Your task to perform on an android device: snooze an email in the gmail app Image 0: 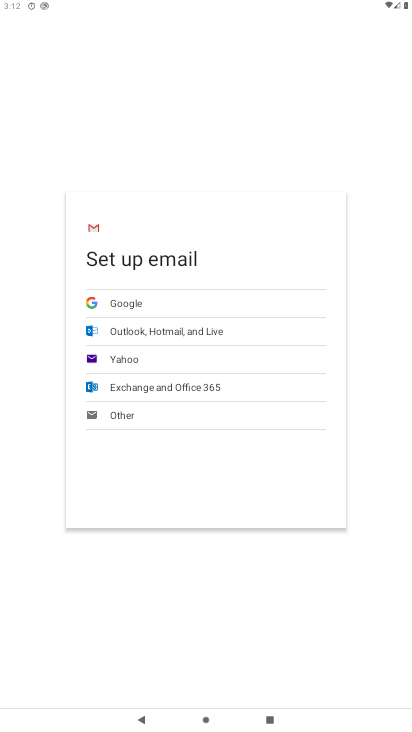
Step 0: press home button
Your task to perform on an android device: snooze an email in the gmail app Image 1: 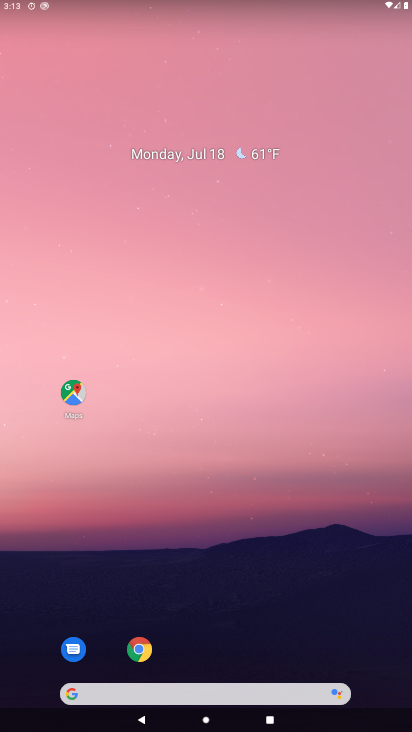
Step 1: drag from (152, 420) to (251, 104)
Your task to perform on an android device: snooze an email in the gmail app Image 2: 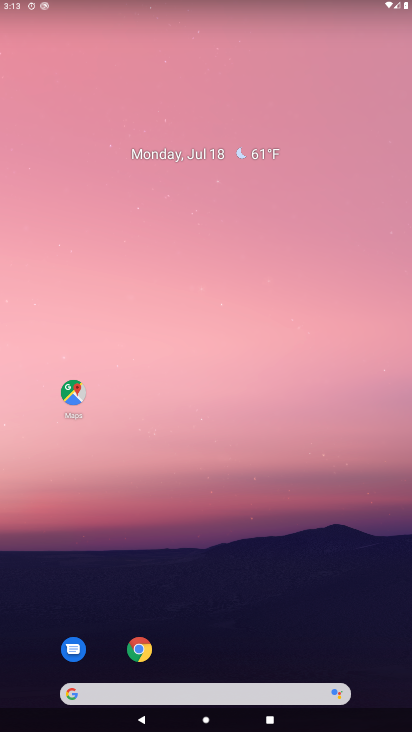
Step 2: drag from (47, 681) to (149, 95)
Your task to perform on an android device: snooze an email in the gmail app Image 3: 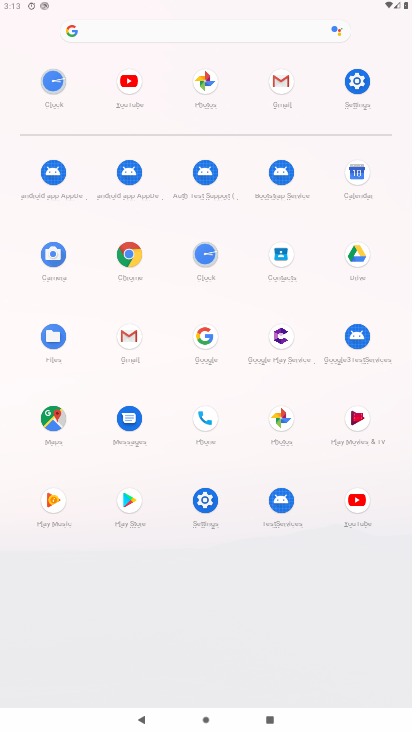
Step 3: click (138, 335)
Your task to perform on an android device: snooze an email in the gmail app Image 4: 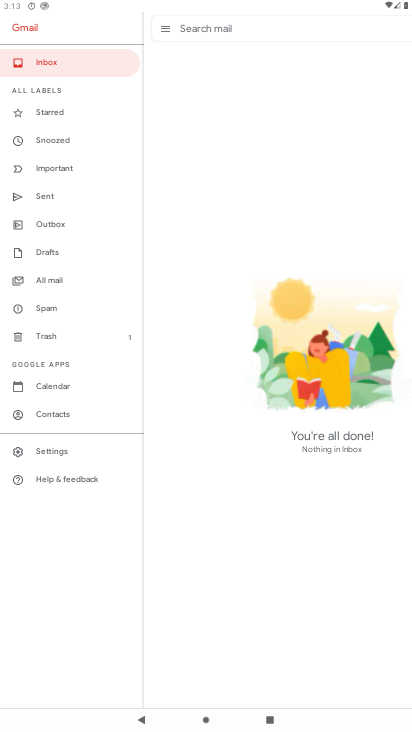
Step 4: click (39, 135)
Your task to perform on an android device: snooze an email in the gmail app Image 5: 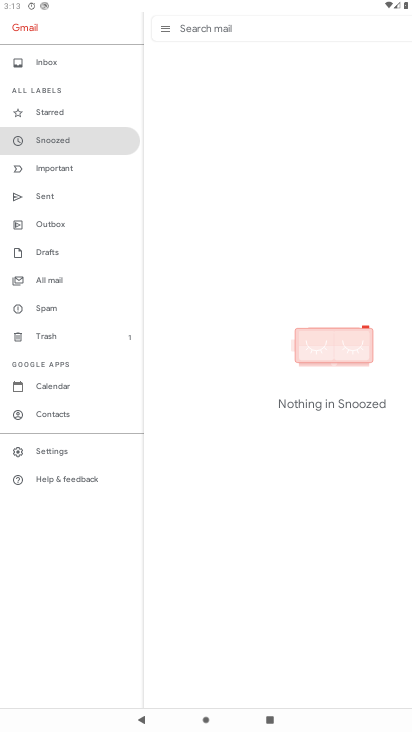
Step 5: task complete